Your task to perform on an android device: turn on improve location accuracy Image 0: 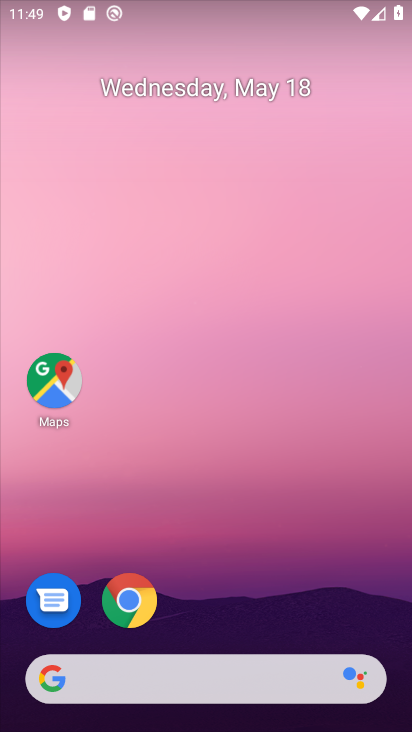
Step 0: drag from (253, 565) to (139, 9)
Your task to perform on an android device: turn on improve location accuracy Image 1: 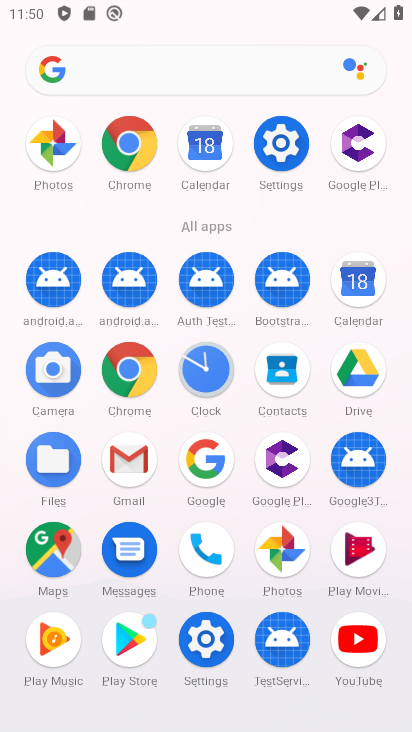
Step 1: click (278, 147)
Your task to perform on an android device: turn on improve location accuracy Image 2: 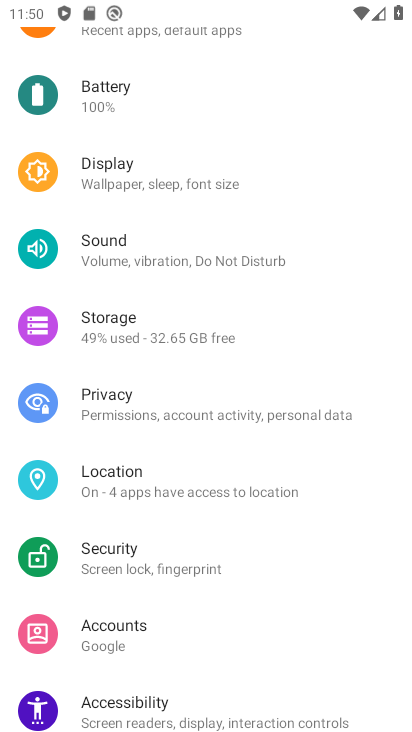
Step 2: click (186, 490)
Your task to perform on an android device: turn on improve location accuracy Image 3: 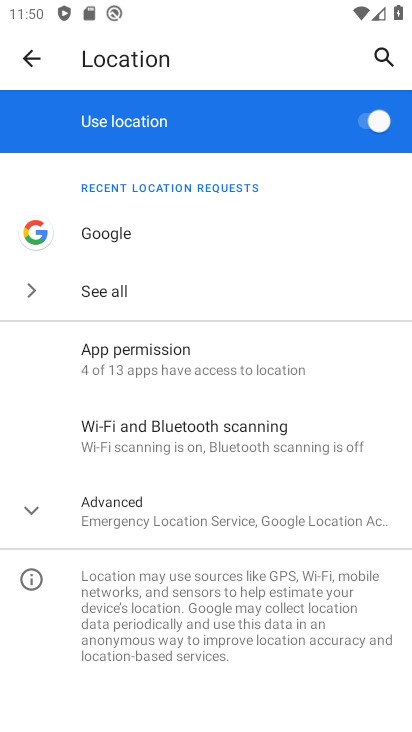
Step 3: click (216, 511)
Your task to perform on an android device: turn on improve location accuracy Image 4: 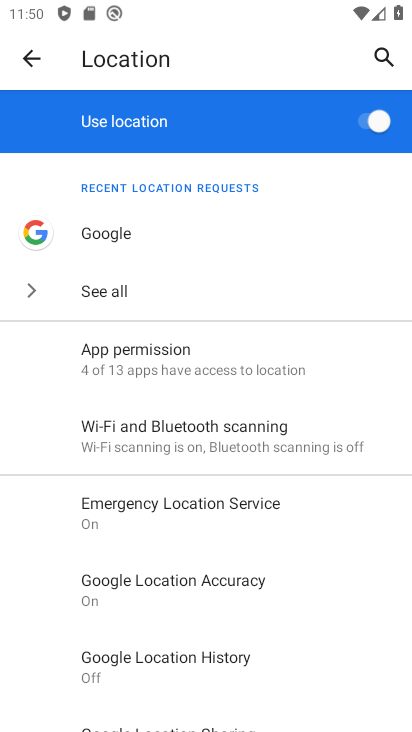
Step 4: click (245, 591)
Your task to perform on an android device: turn on improve location accuracy Image 5: 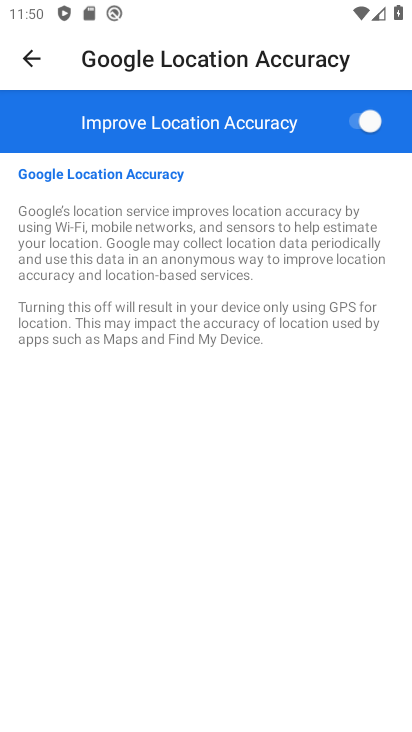
Step 5: task complete